Your task to perform on an android device: Go to notification settings Image 0: 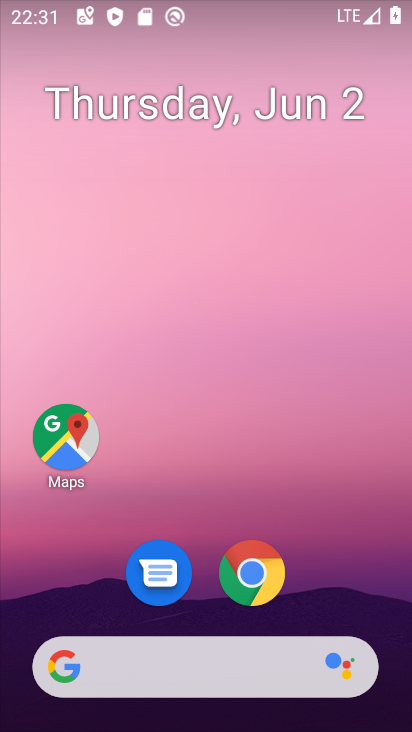
Step 0: drag from (321, 587) to (253, 226)
Your task to perform on an android device: Go to notification settings Image 1: 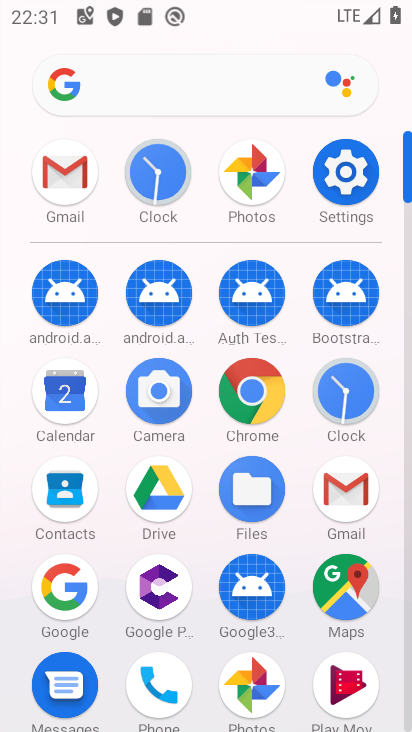
Step 1: click (346, 183)
Your task to perform on an android device: Go to notification settings Image 2: 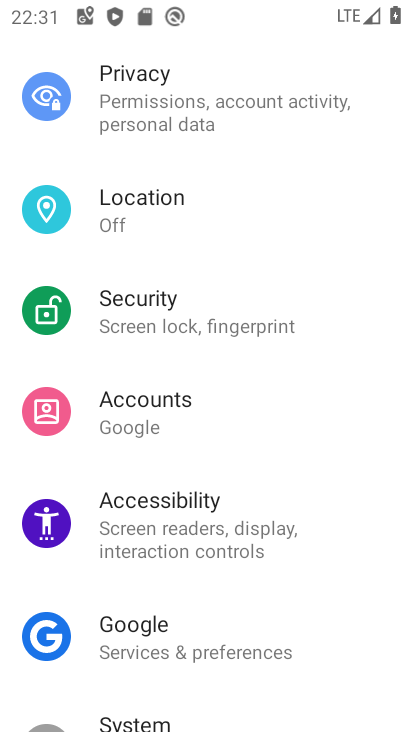
Step 2: drag from (304, 206) to (266, 517)
Your task to perform on an android device: Go to notification settings Image 3: 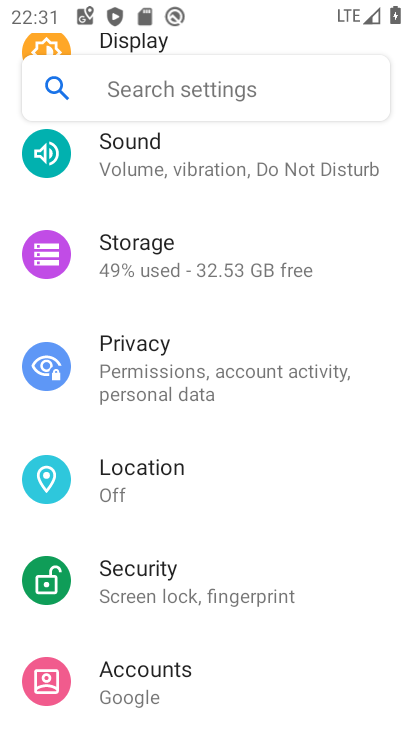
Step 3: drag from (279, 185) to (244, 587)
Your task to perform on an android device: Go to notification settings Image 4: 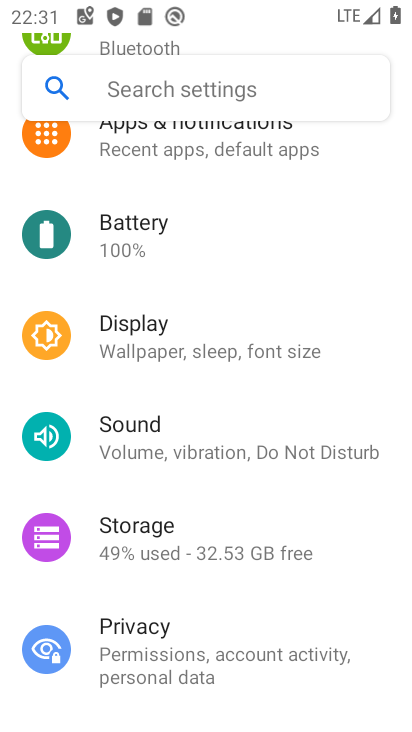
Step 4: drag from (319, 164) to (313, 451)
Your task to perform on an android device: Go to notification settings Image 5: 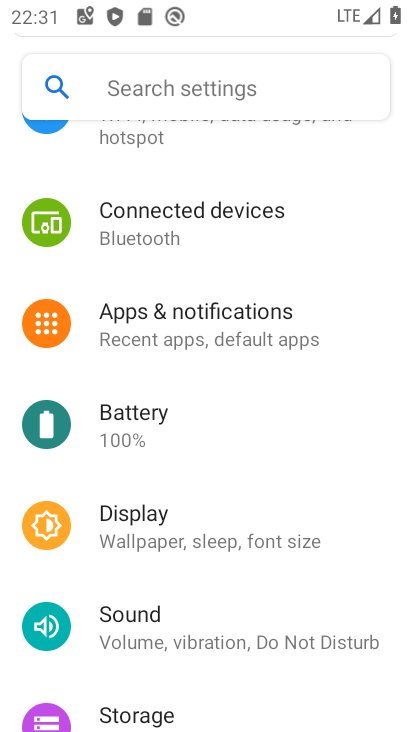
Step 5: click (275, 322)
Your task to perform on an android device: Go to notification settings Image 6: 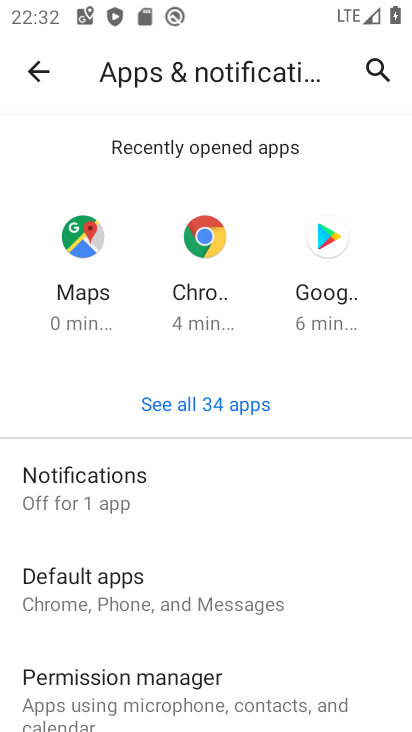
Step 6: task complete